Your task to perform on an android device: change the clock display to show seconds Image 0: 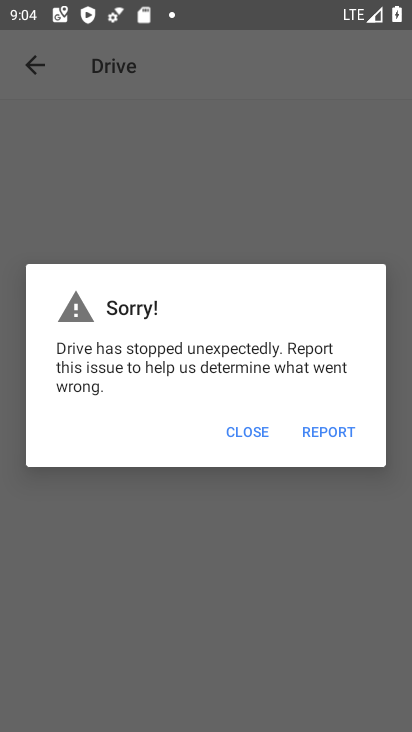
Step 0: press home button
Your task to perform on an android device: change the clock display to show seconds Image 1: 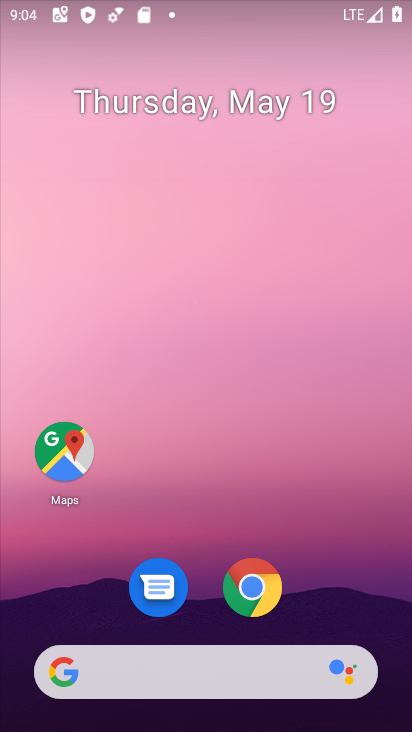
Step 1: drag from (344, 539) to (256, 2)
Your task to perform on an android device: change the clock display to show seconds Image 2: 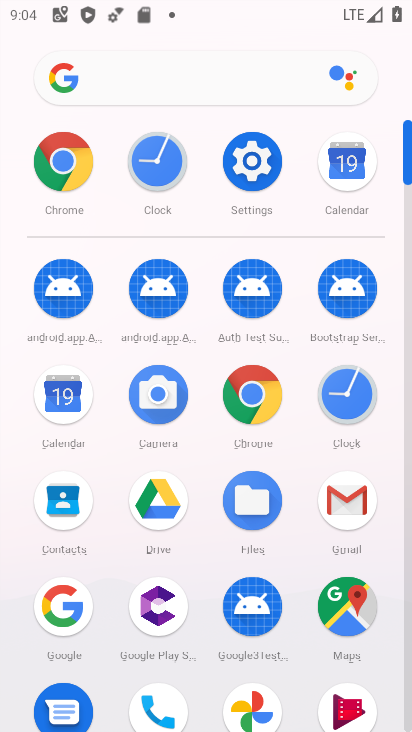
Step 2: drag from (14, 569) to (41, 277)
Your task to perform on an android device: change the clock display to show seconds Image 3: 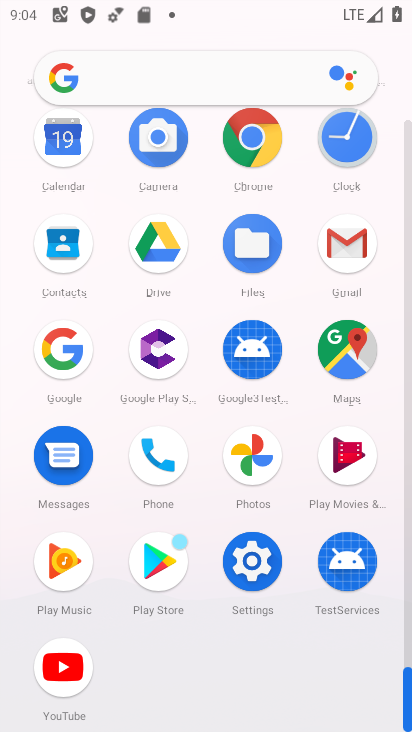
Step 3: click (351, 137)
Your task to perform on an android device: change the clock display to show seconds Image 4: 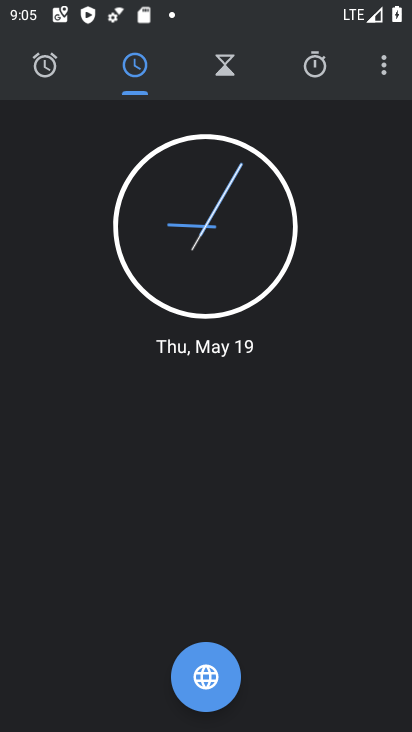
Step 4: drag from (375, 74) to (327, 133)
Your task to perform on an android device: change the clock display to show seconds Image 5: 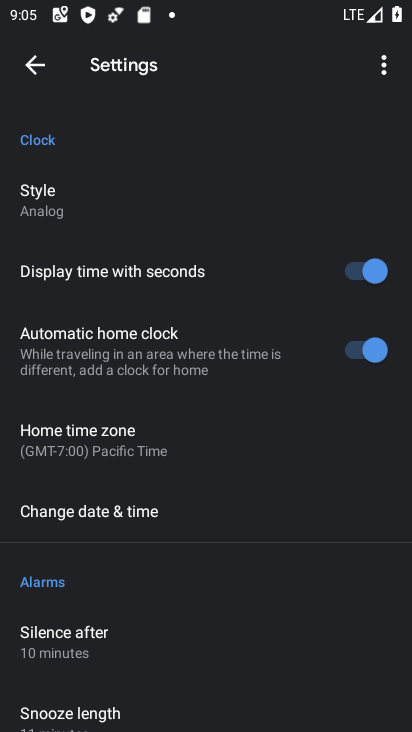
Step 5: click (121, 200)
Your task to perform on an android device: change the clock display to show seconds Image 6: 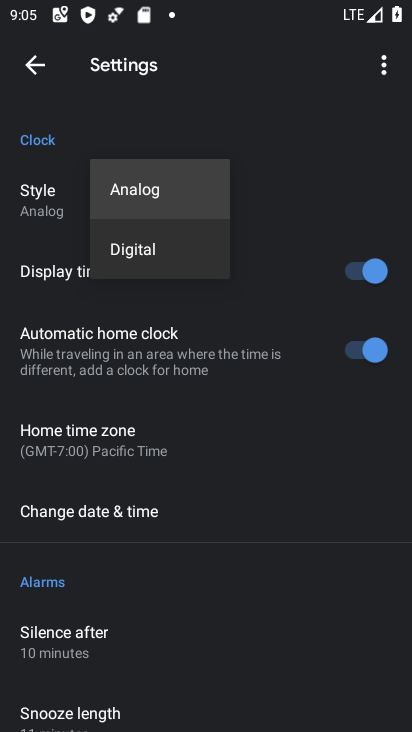
Step 6: click (347, 135)
Your task to perform on an android device: change the clock display to show seconds Image 7: 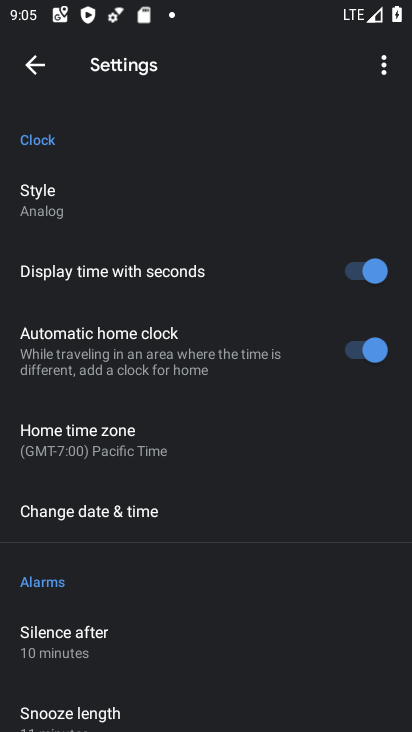
Step 7: task complete